Your task to perform on an android device: Go to Reddit.com Image 0: 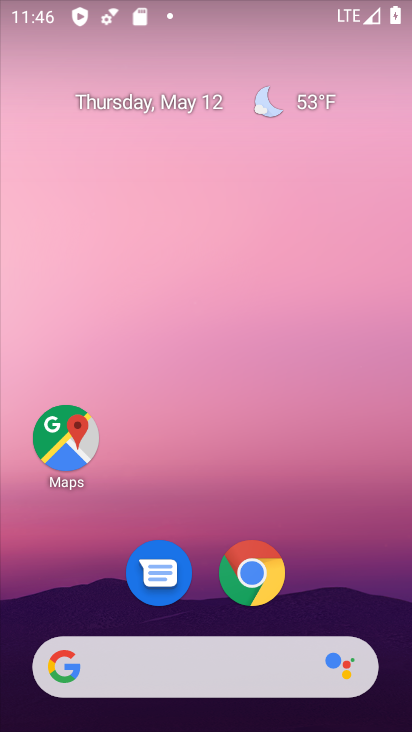
Step 0: click (175, 662)
Your task to perform on an android device: Go to Reddit.com Image 1: 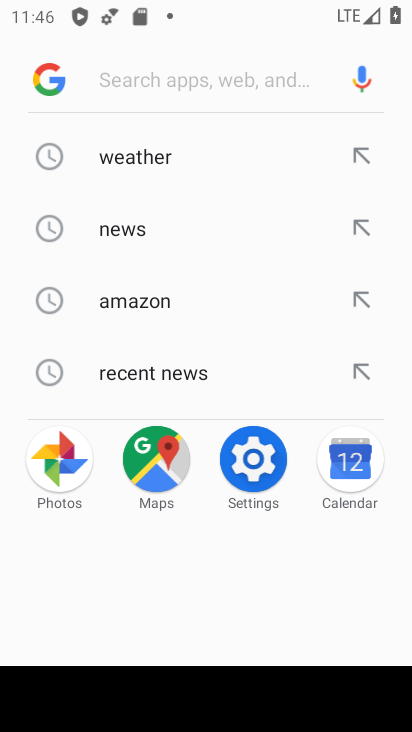
Step 1: type "Reddit.com"
Your task to perform on an android device: Go to Reddit.com Image 2: 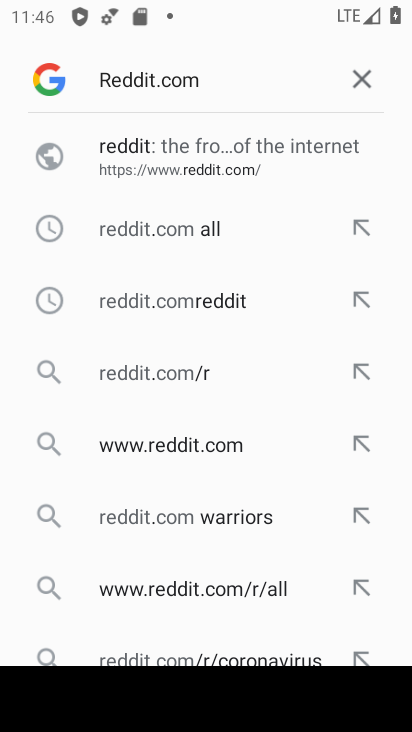
Step 2: click (196, 186)
Your task to perform on an android device: Go to Reddit.com Image 3: 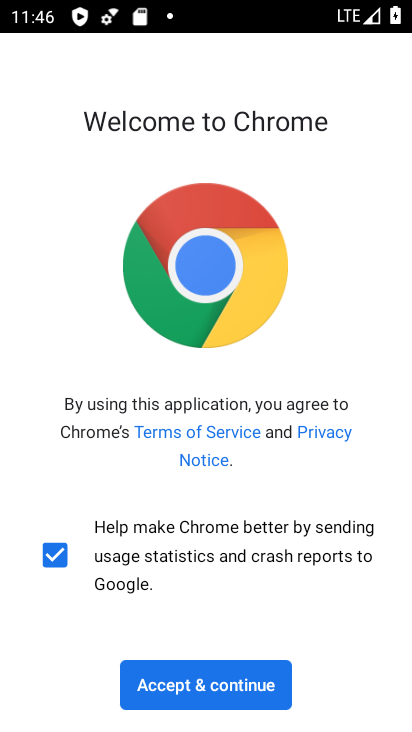
Step 3: click (179, 687)
Your task to perform on an android device: Go to Reddit.com Image 4: 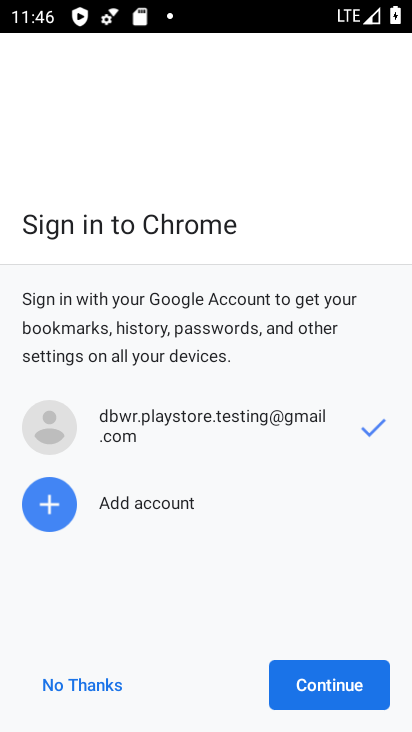
Step 4: click (318, 681)
Your task to perform on an android device: Go to Reddit.com Image 5: 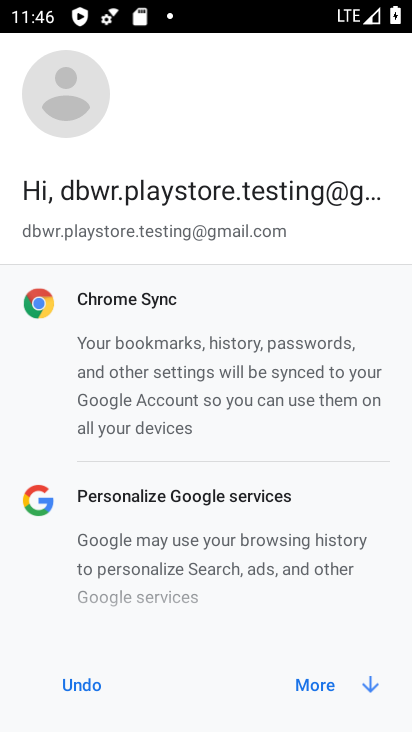
Step 5: click (326, 688)
Your task to perform on an android device: Go to Reddit.com Image 6: 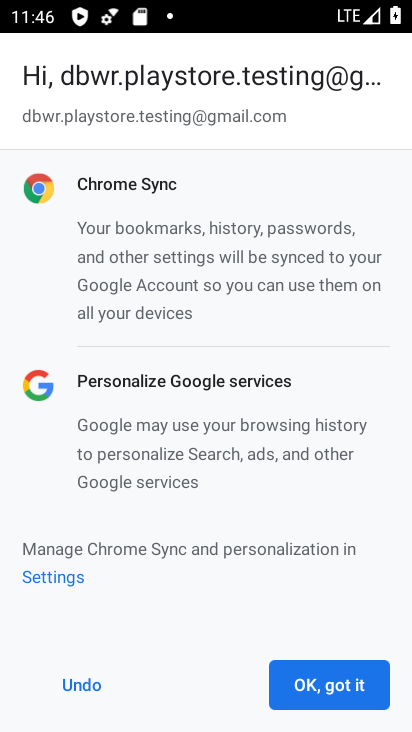
Step 6: click (326, 688)
Your task to perform on an android device: Go to Reddit.com Image 7: 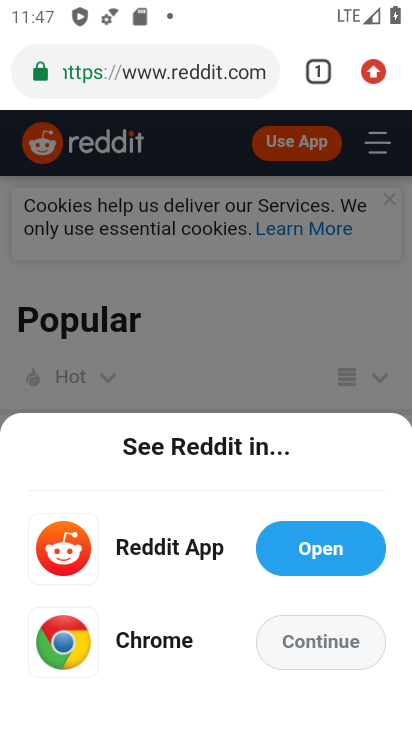
Step 7: click (337, 643)
Your task to perform on an android device: Go to Reddit.com Image 8: 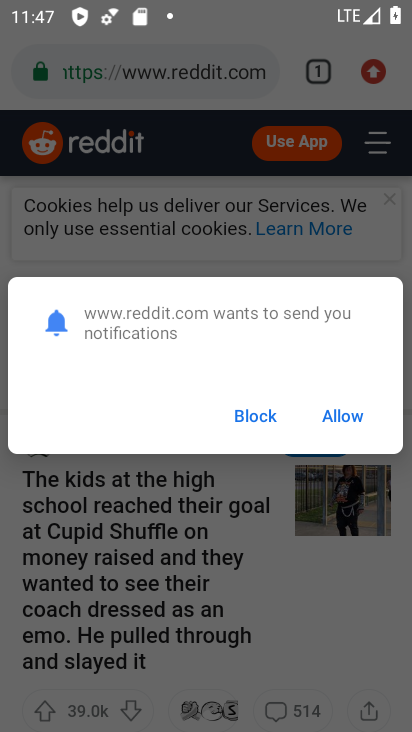
Step 8: click (332, 421)
Your task to perform on an android device: Go to Reddit.com Image 9: 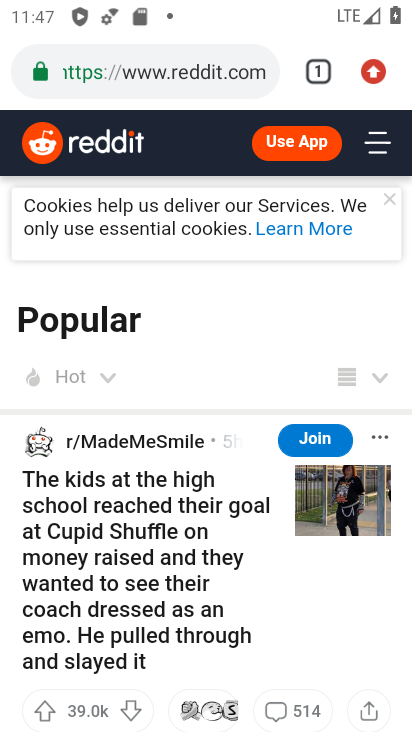
Step 9: task complete